Your task to perform on an android device: Search for Italian restaurants on Maps Image 0: 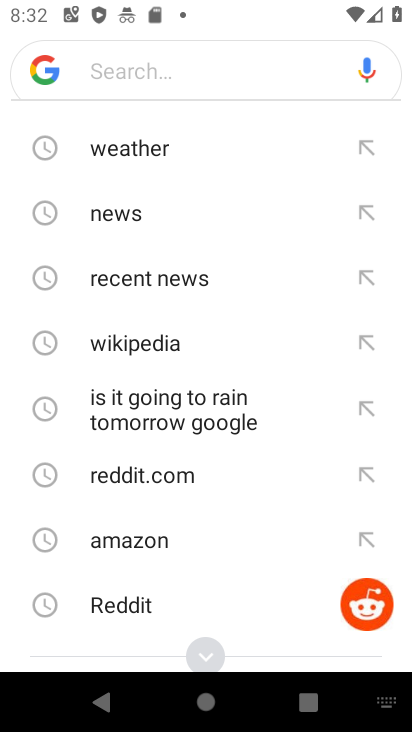
Step 0: press home button
Your task to perform on an android device: Search for Italian restaurants on Maps Image 1: 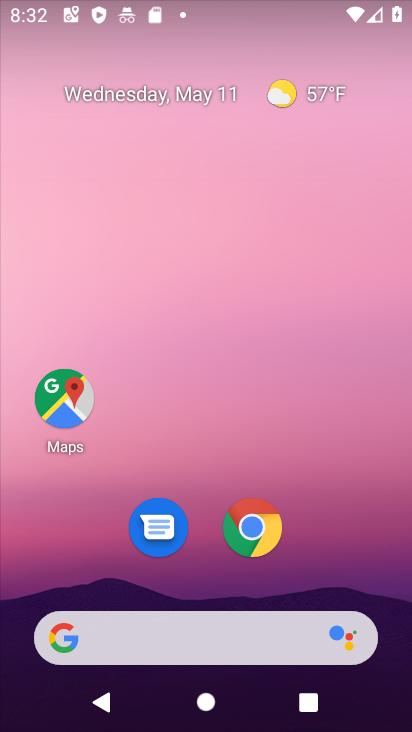
Step 1: click (65, 400)
Your task to perform on an android device: Search for Italian restaurants on Maps Image 2: 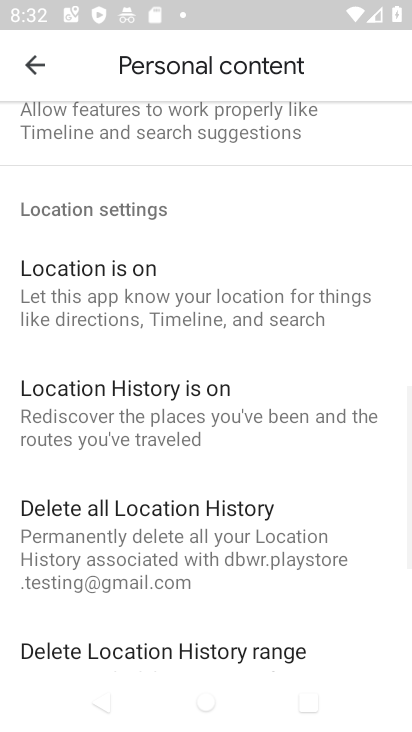
Step 2: click (26, 64)
Your task to perform on an android device: Search for Italian restaurants on Maps Image 3: 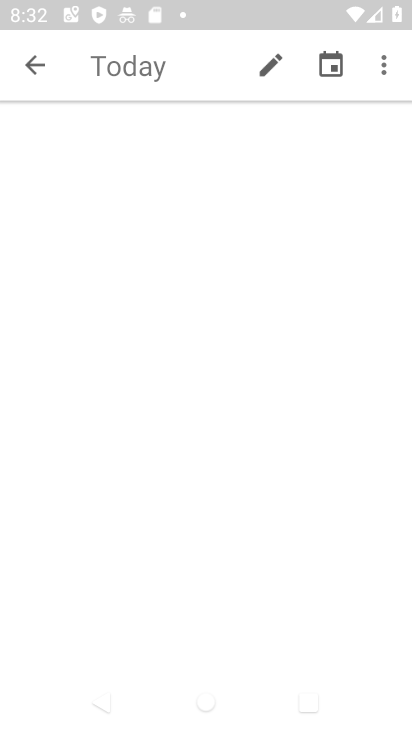
Step 3: click (28, 71)
Your task to perform on an android device: Search for Italian restaurants on Maps Image 4: 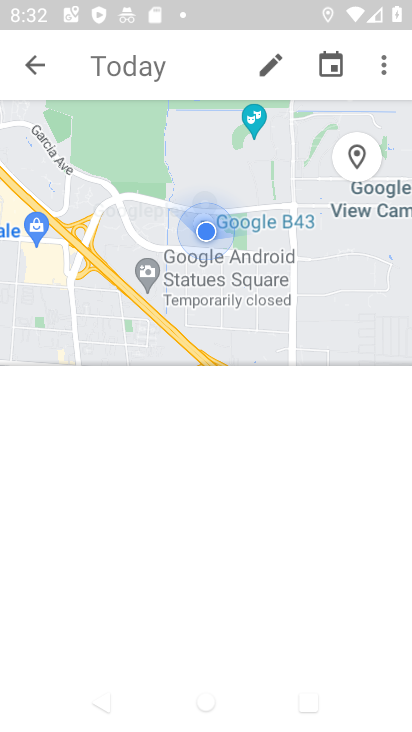
Step 4: click (28, 76)
Your task to perform on an android device: Search for Italian restaurants on Maps Image 5: 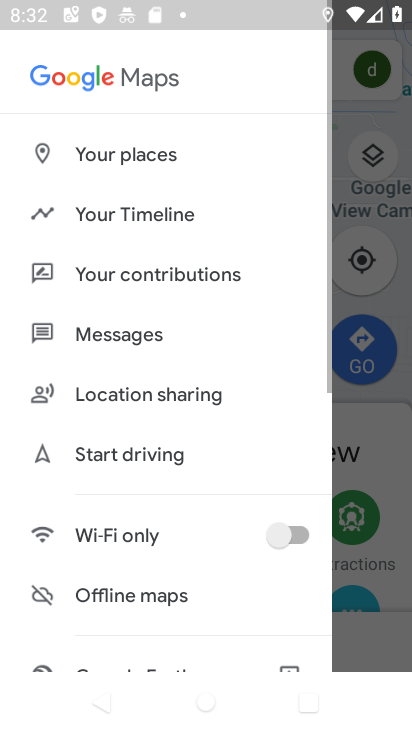
Step 5: click (101, 70)
Your task to perform on an android device: Search for Italian restaurants on Maps Image 6: 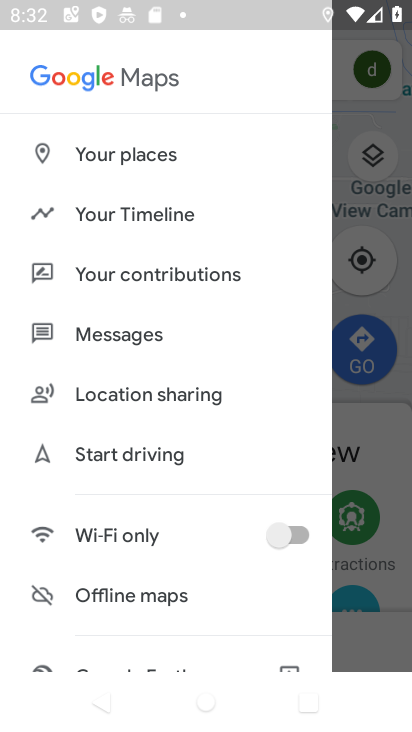
Step 6: click (345, 99)
Your task to perform on an android device: Search for Italian restaurants on Maps Image 7: 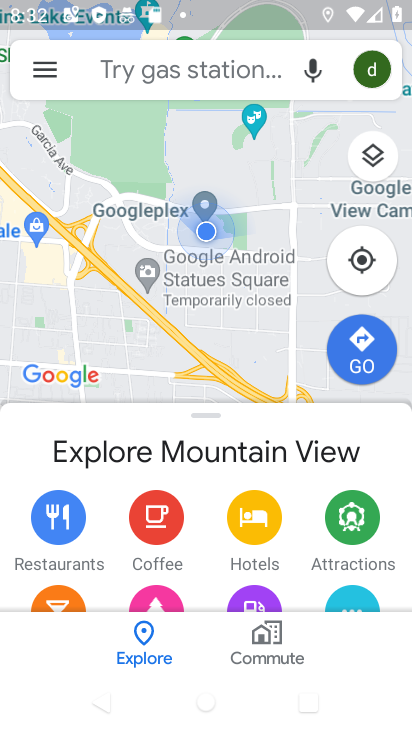
Step 7: click (140, 66)
Your task to perform on an android device: Search for Italian restaurants on Maps Image 8: 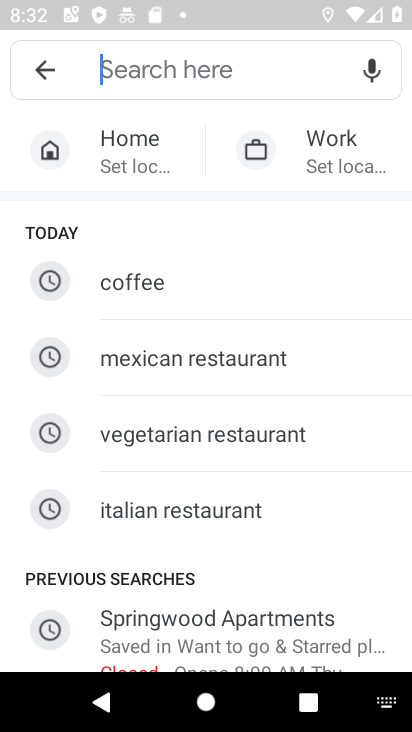
Step 8: type "italian restaurant"
Your task to perform on an android device: Search for Italian restaurants on Maps Image 9: 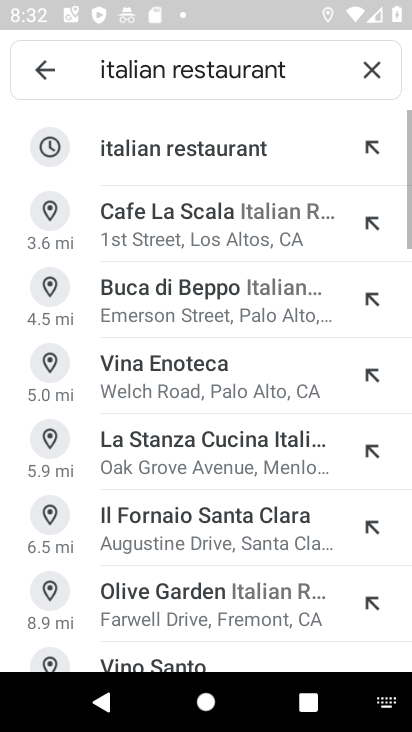
Step 9: click (136, 150)
Your task to perform on an android device: Search for Italian restaurants on Maps Image 10: 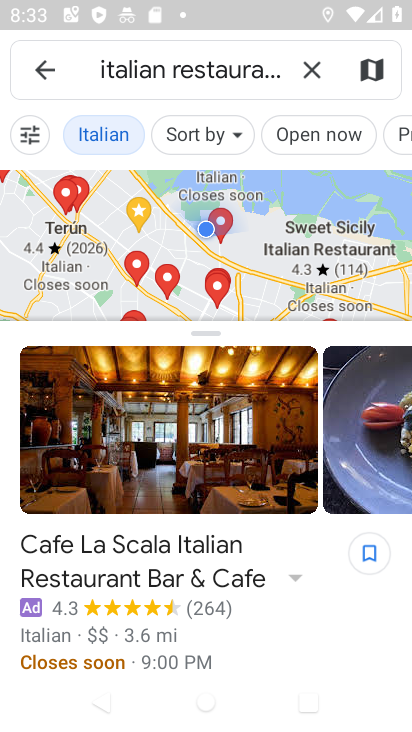
Step 10: task complete